Your task to perform on an android device: Go to Reddit.com Image 0: 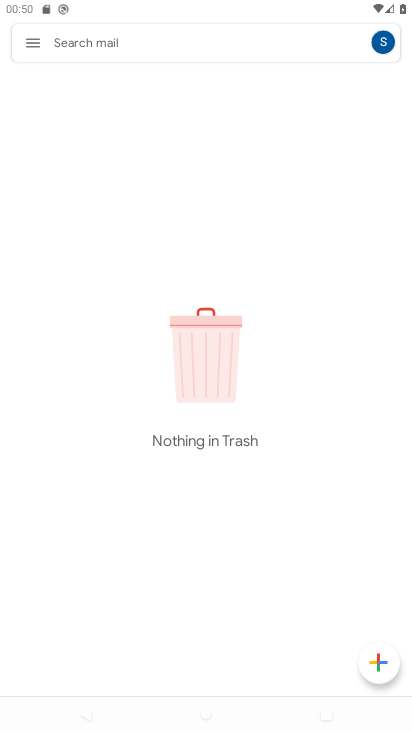
Step 0: press home button
Your task to perform on an android device: Go to Reddit.com Image 1: 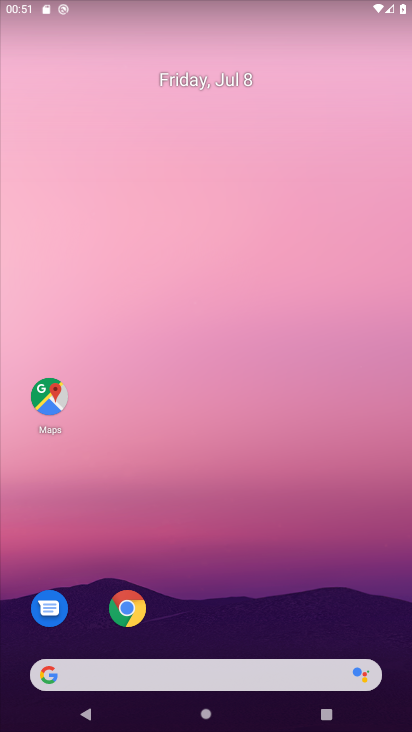
Step 1: drag from (266, 560) to (248, 175)
Your task to perform on an android device: Go to Reddit.com Image 2: 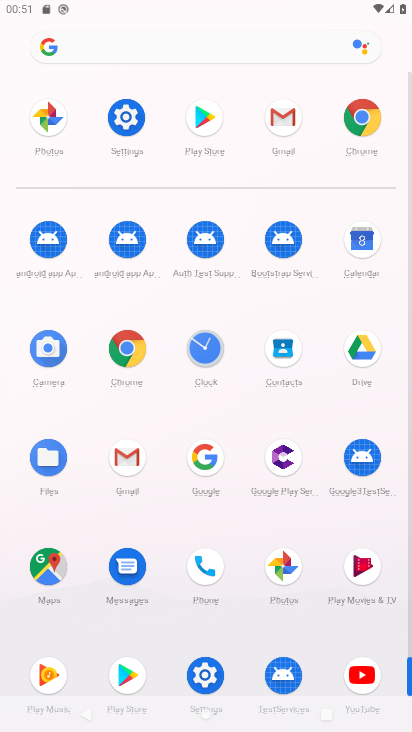
Step 2: click (360, 119)
Your task to perform on an android device: Go to Reddit.com Image 3: 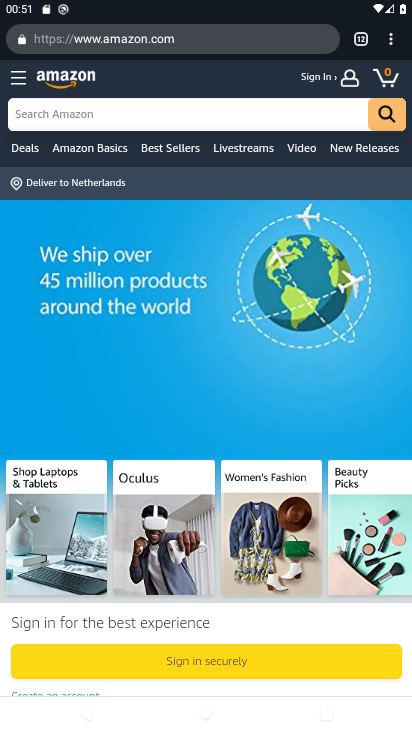
Step 3: click (398, 39)
Your task to perform on an android device: Go to Reddit.com Image 4: 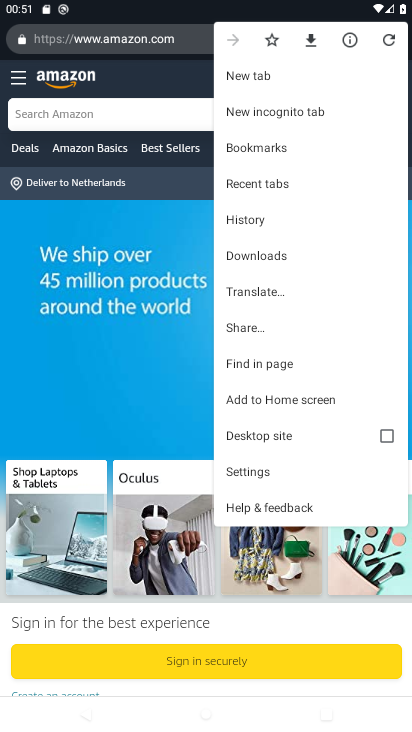
Step 4: click (283, 84)
Your task to perform on an android device: Go to Reddit.com Image 5: 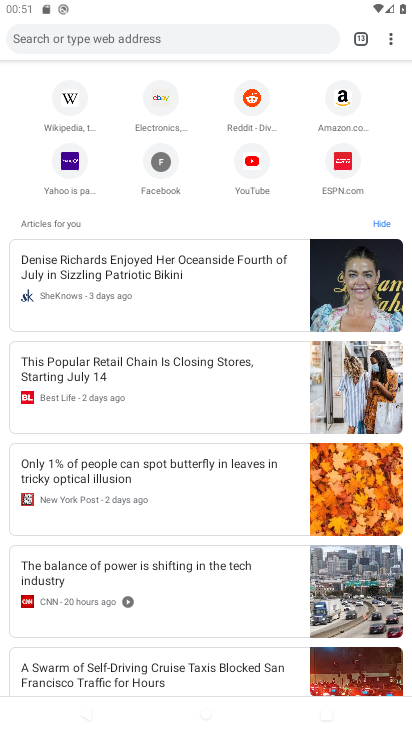
Step 5: click (174, 38)
Your task to perform on an android device: Go to Reddit.com Image 6: 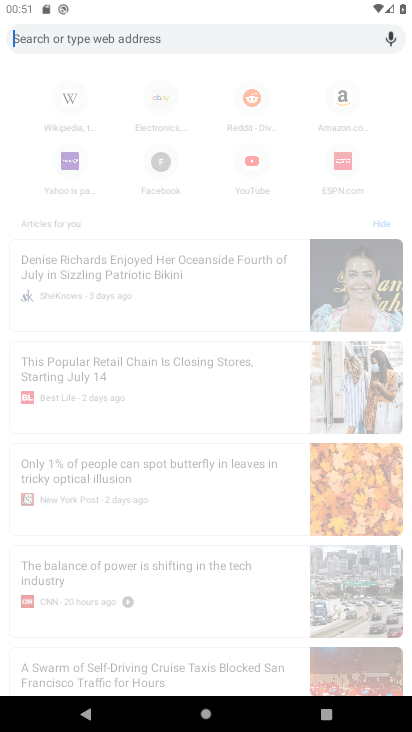
Step 6: type " Reddit.com "
Your task to perform on an android device: Go to Reddit.com Image 7: 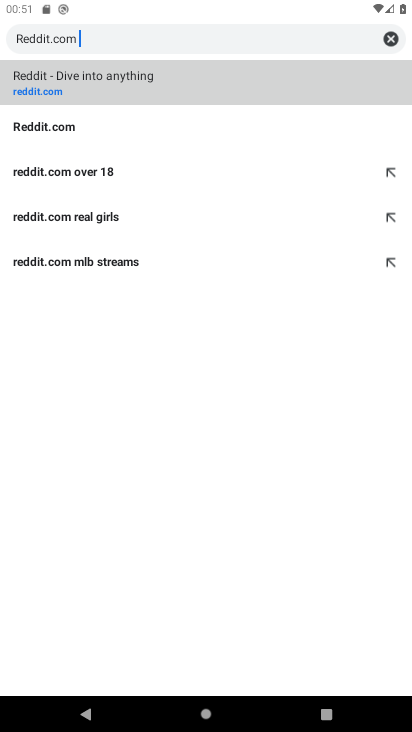
Step 7: click (171, 86)
Your task to perform on an android device: Go to Reddit.com Image 8: 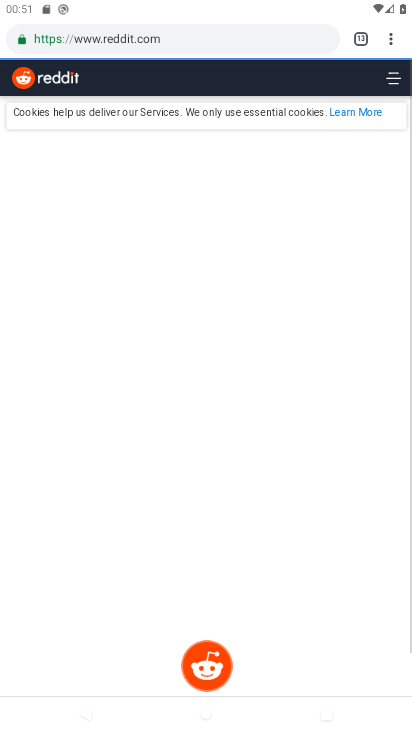
Step 8: task complete